Your task to perform on an android device: open app "DoorDash - Food Delivery" (install if not already installed) Image 0: 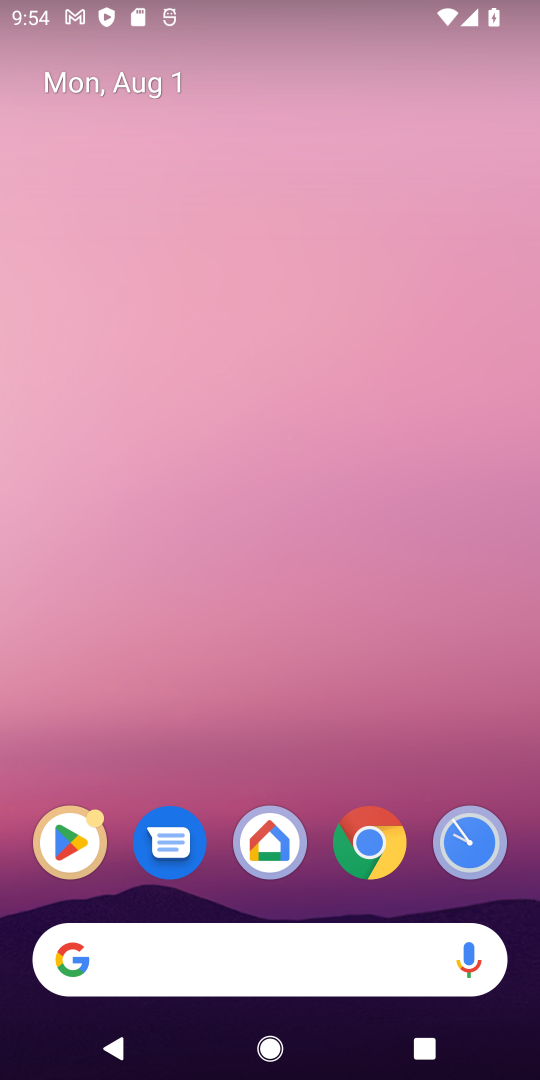
Step 0: click (77, 844)
Your task to perform on an android device: open app "DoorDash - Food Delivery" (install if not already installed) Image 1: 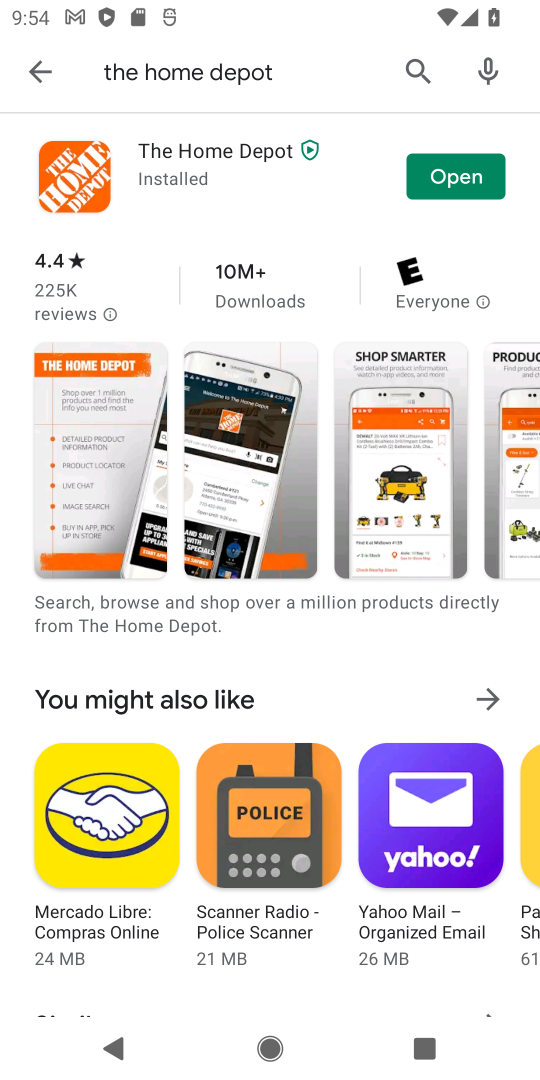
Step 1: click (410, 70)
Your task to perform on an android device: open app "DoorDash - Food Delivery" (install if not already installed) Image 2: 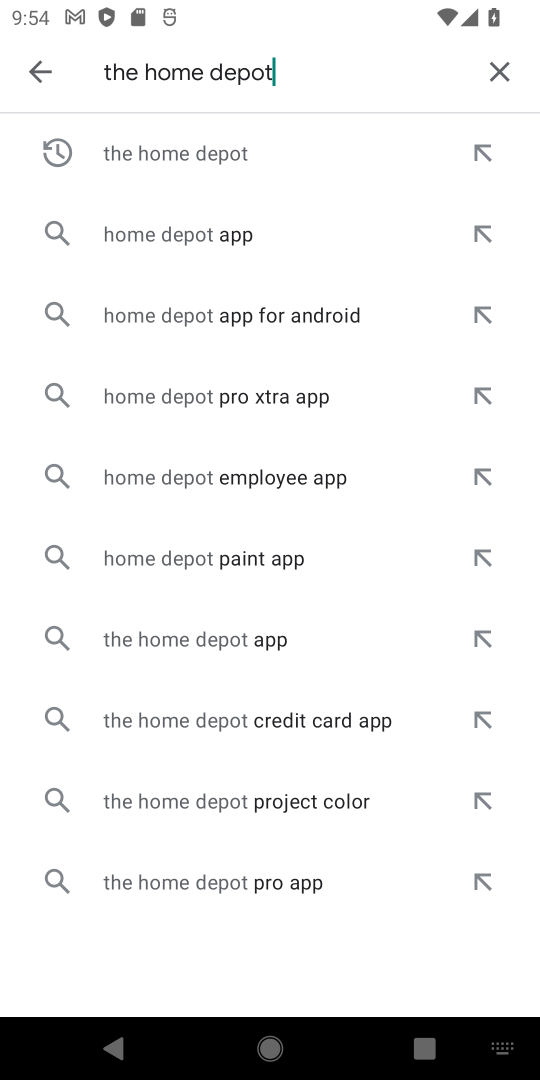
Step 2: click (501, 63)
Your task to perform on an android device: open app "DoorDash - Food Delivery" (install if not already installed) Image 3: 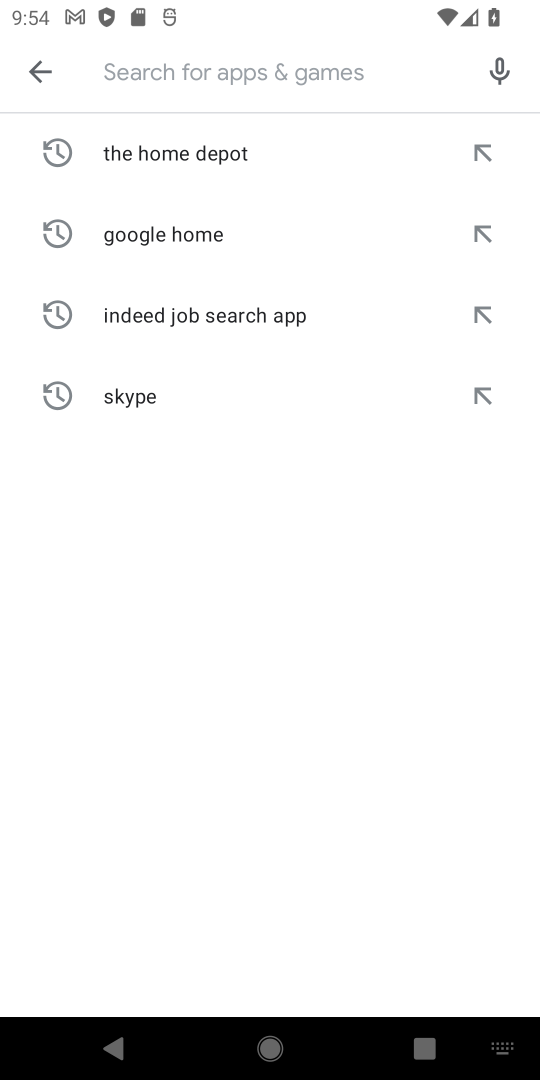
Step 3: click (189, 80)
Your task to perform on an android device: open app "DoorDash - Food Delivery" (install if not already installed) Image 4: 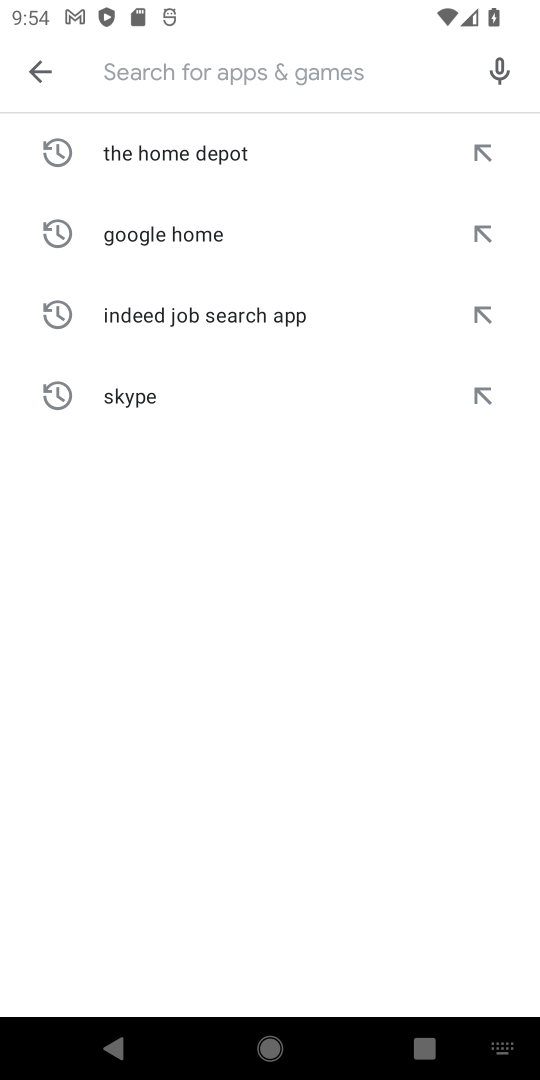
Step 4: type "doordash"
Your task to perform on an android device: open app "DoorDash - Food Delivery" (install if not already installed) Image 5: 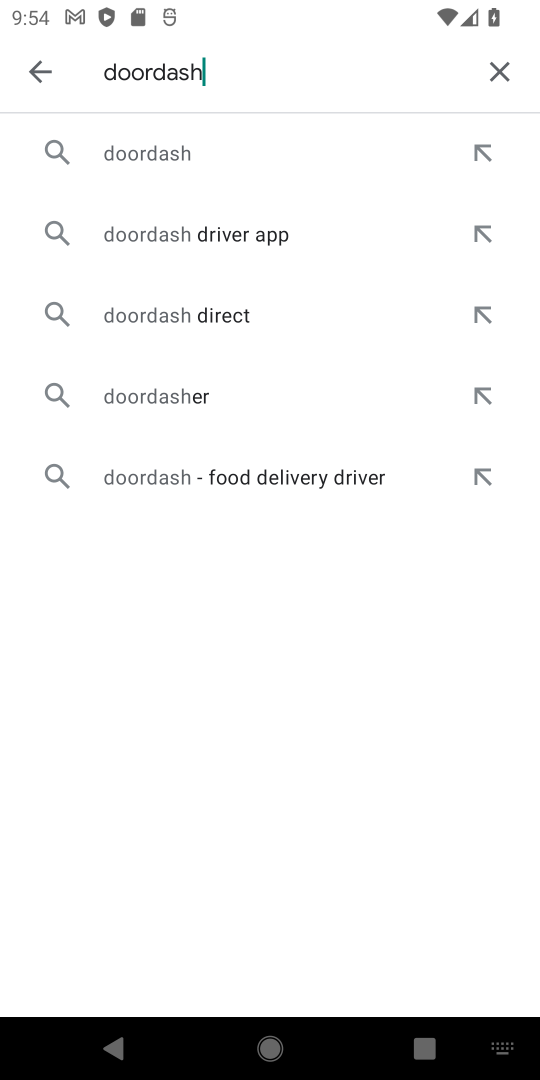
Step 5: click (205, 143)
Your task to perform on an android device: open app "DoorDash - Food Delivery" (install if not already installed) Image 6: 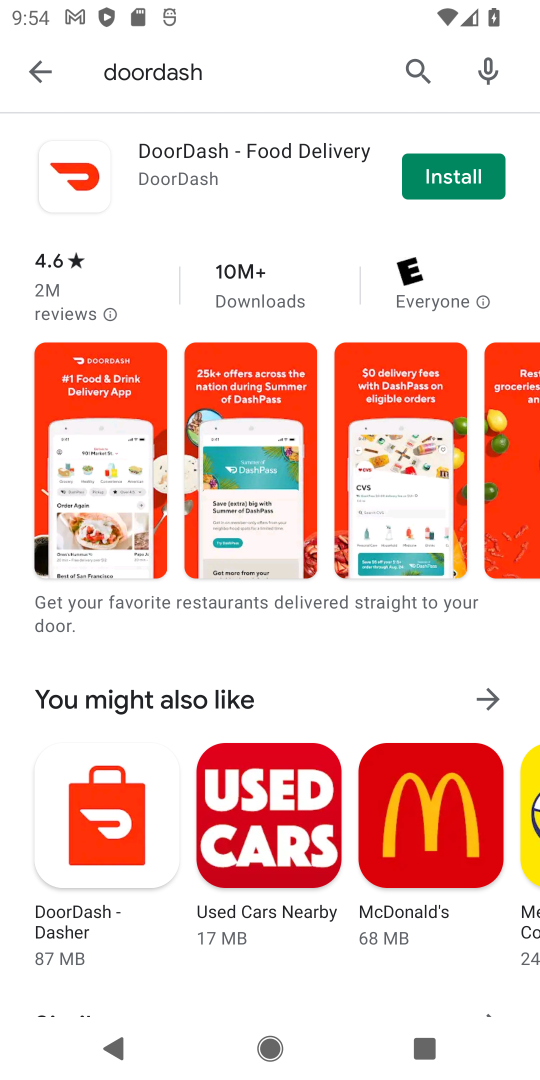
Step 6: click (460, 168)
Your task to perform on an android device: open app "DoorDash - Food Delivery" (install if not already installed) Image 7: 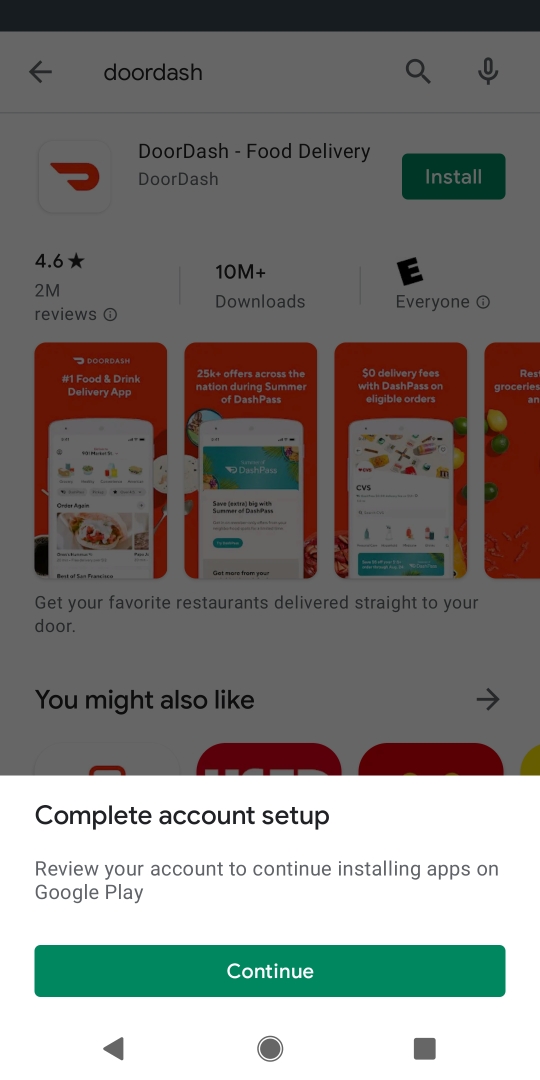
Step 7: click (260, 992)
Your task to perform on an android device: open app "DoorDash - Food Delivery" (install if not already installed) Image 8: 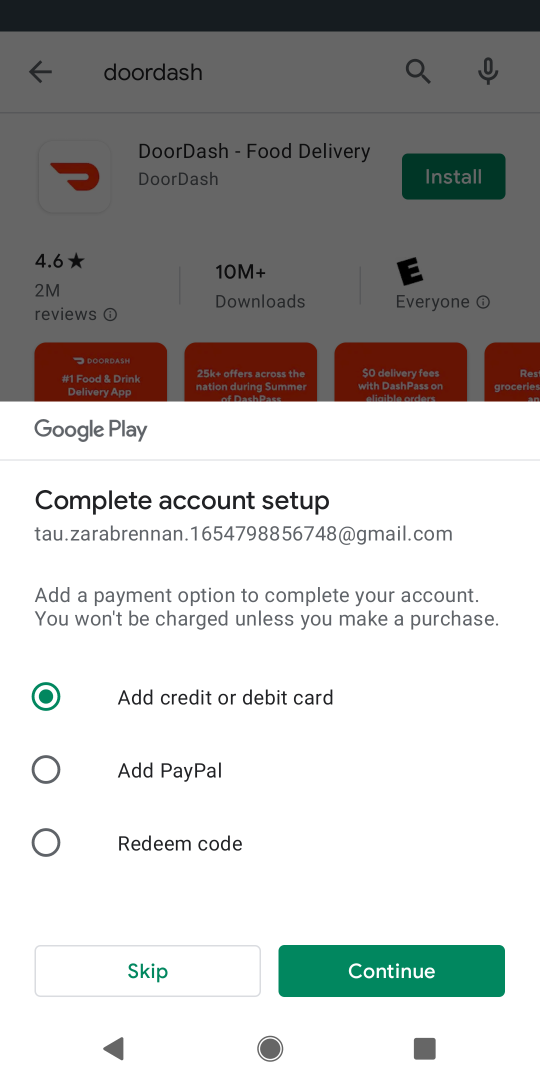
Step 8: click (176, 975)
Your task to perform on an android device: open app "DoorDash - Food Delivery" (install if not already installed) Image 9: 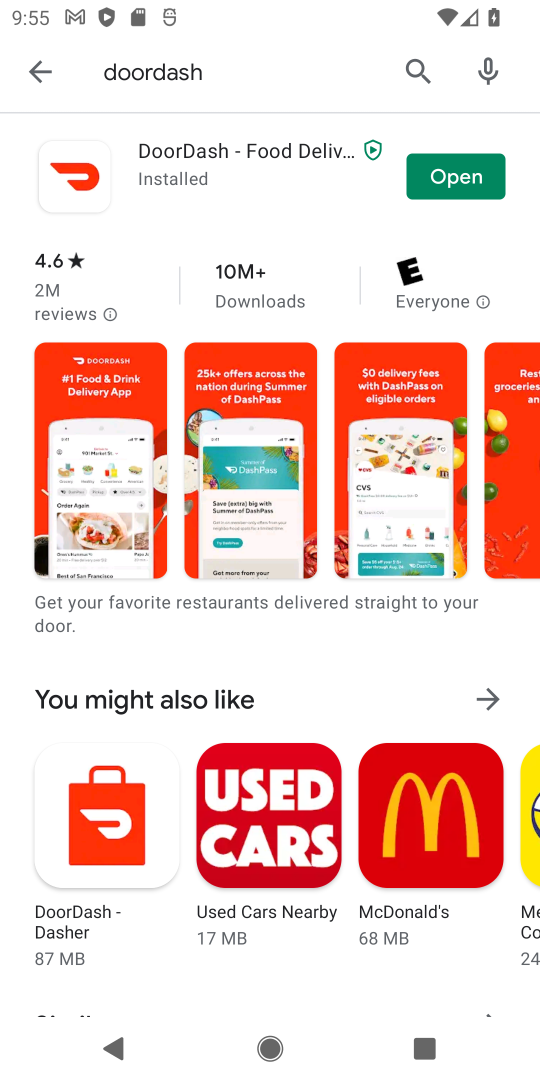
Step 9: click (450, 180)
Your task to perform on an android device: open app "DoorDash - Food Delivery" (install if not already installed) Image 10: 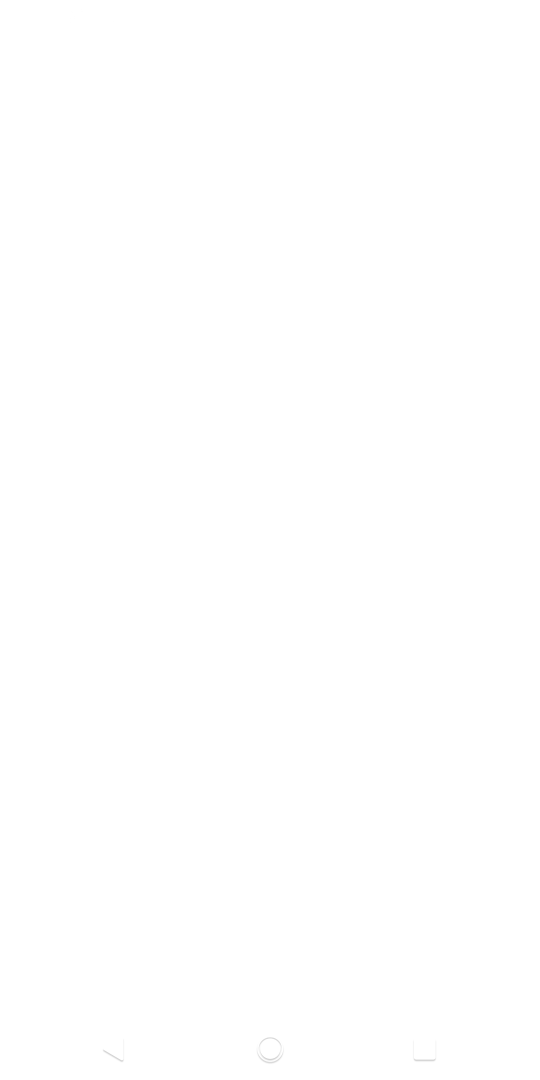
Step 10: task complete